Your task to perform on an android device: set the timer Image 0: 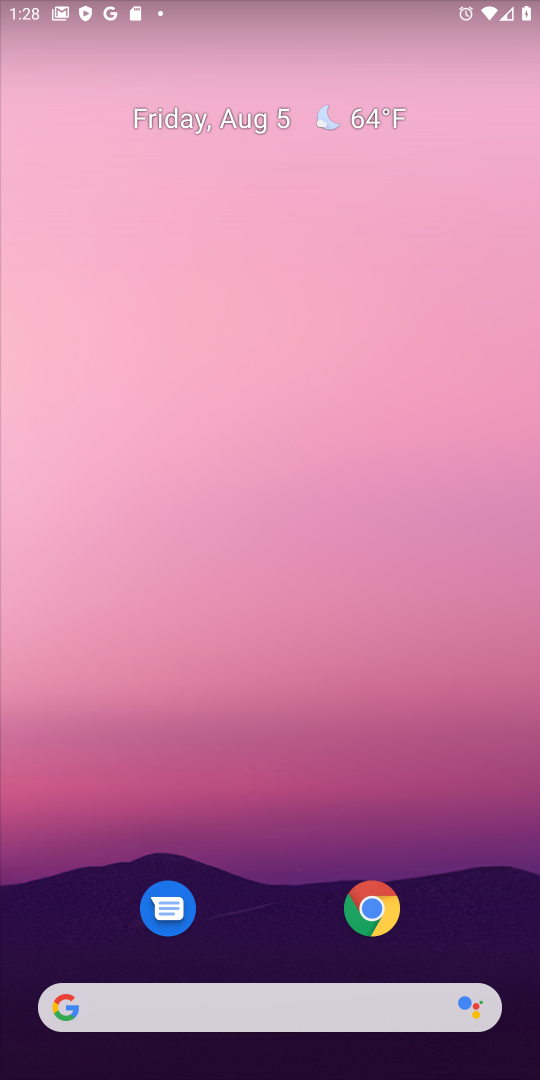
Step 0: press home button
Your task to perform on an android device: set the timer Image 1: 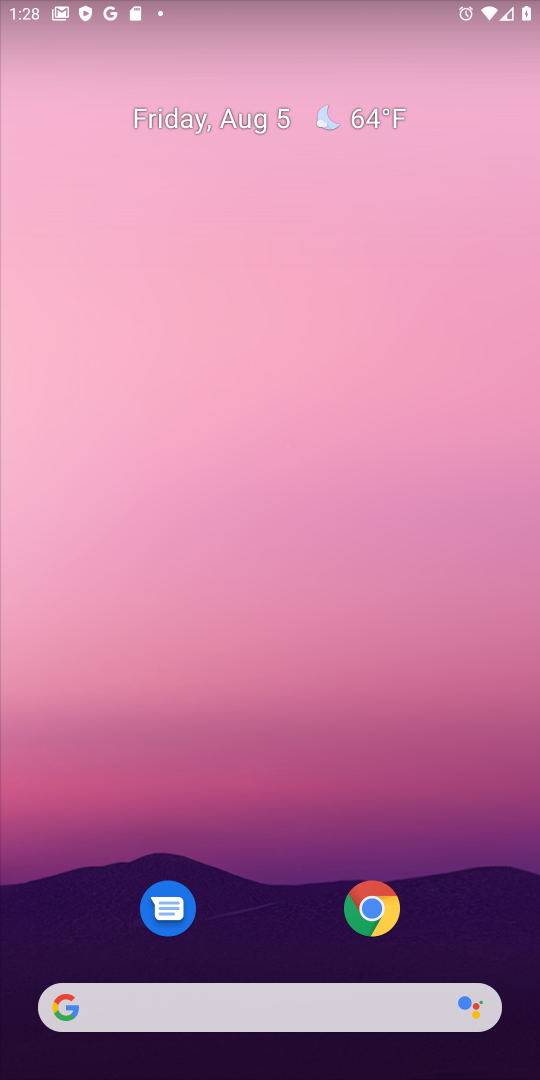
Step 1: drag from (235, 965) to (184, 288)
Your task to perform on an android device: set the timer Image 2: 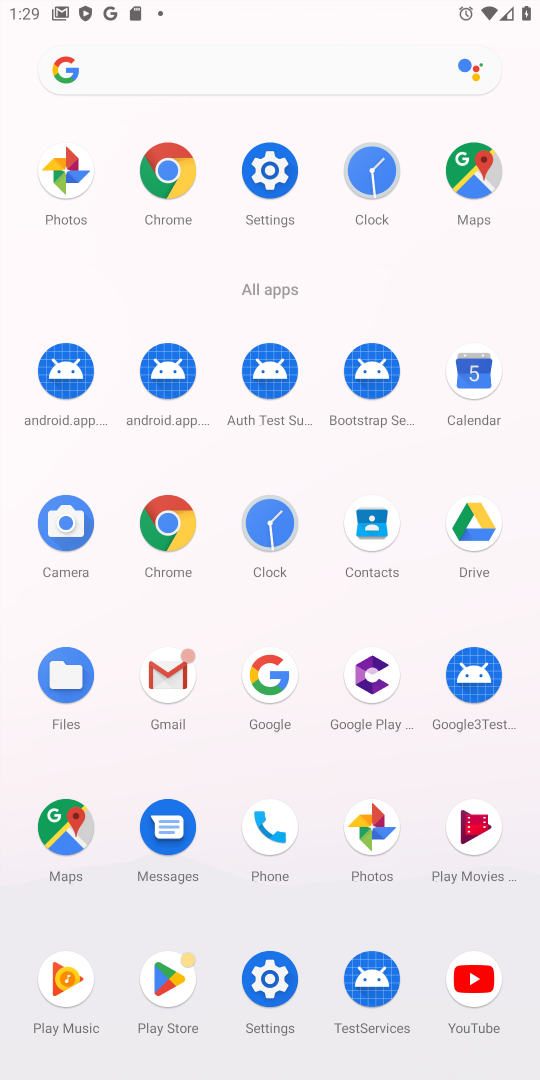
Step 2: click (269, 520)
Your task to perform on an android device: set the timer Image 3: 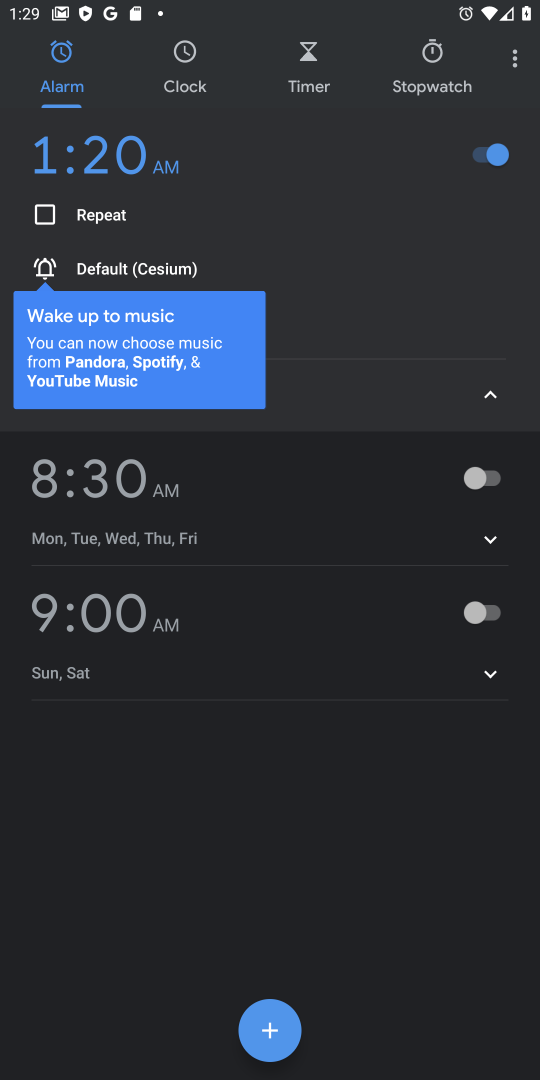
Step 3: click (317, 59)
Your task to perform on an android device: set the timer Image 4: 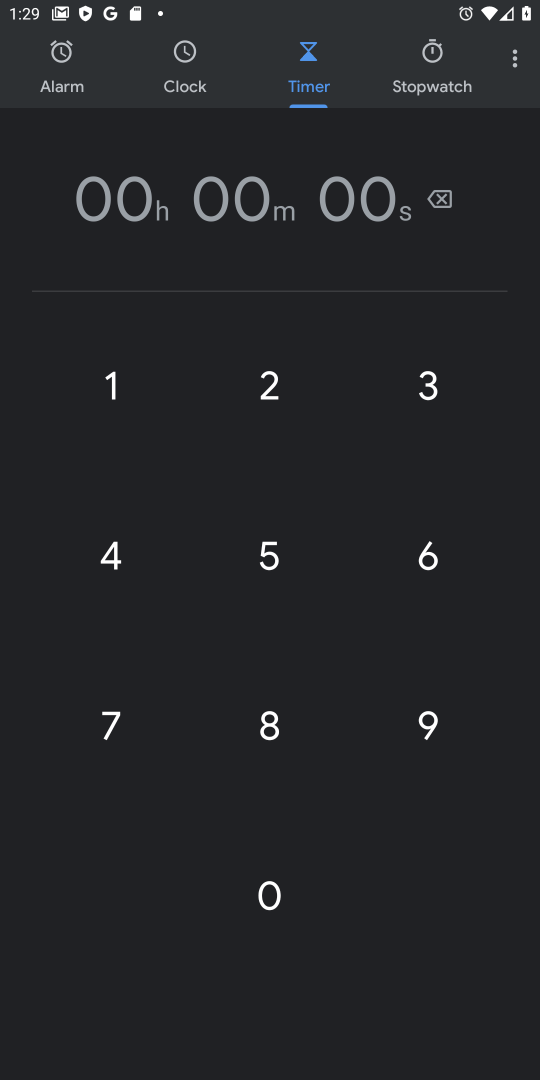
Step 4: click (254, 556)
Your task to perform on an android device: set the timer Image 5: 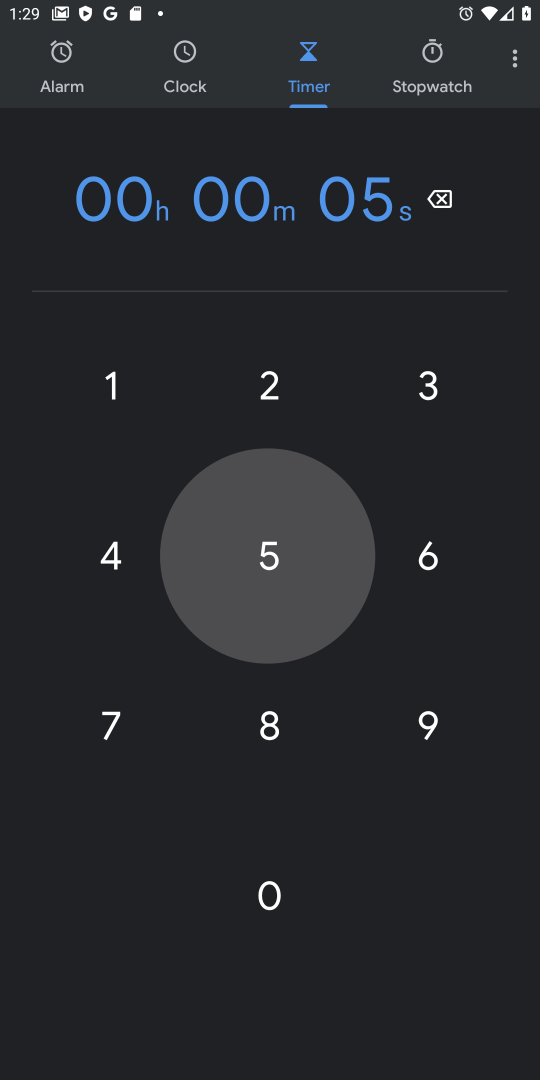
Step 5: click (444, 379)
Your task to perform on an android device: set the timer Image 6: 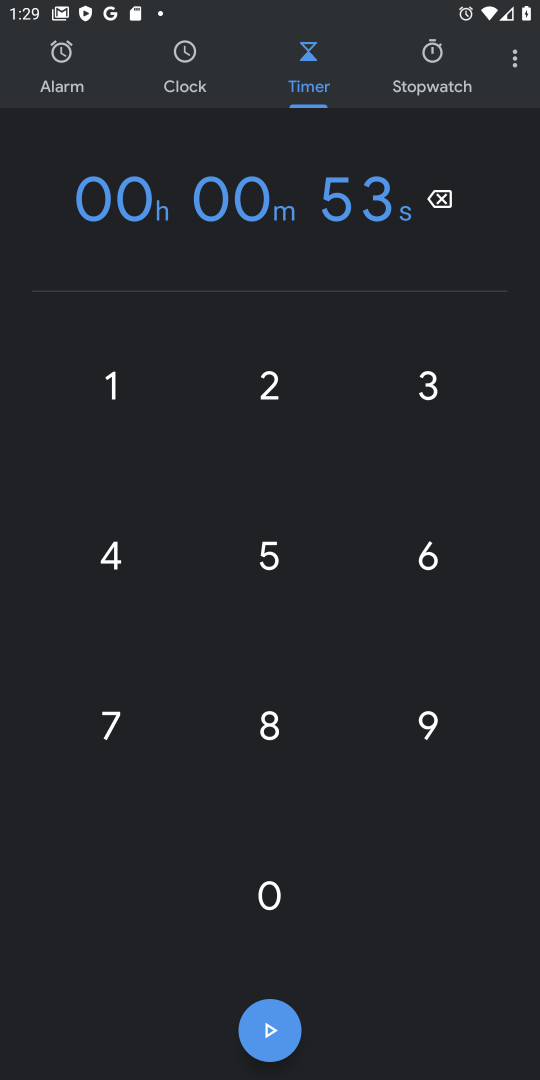
Step 6: click (134, 738)
Your task to perform on an android device: set the timer Image 7: 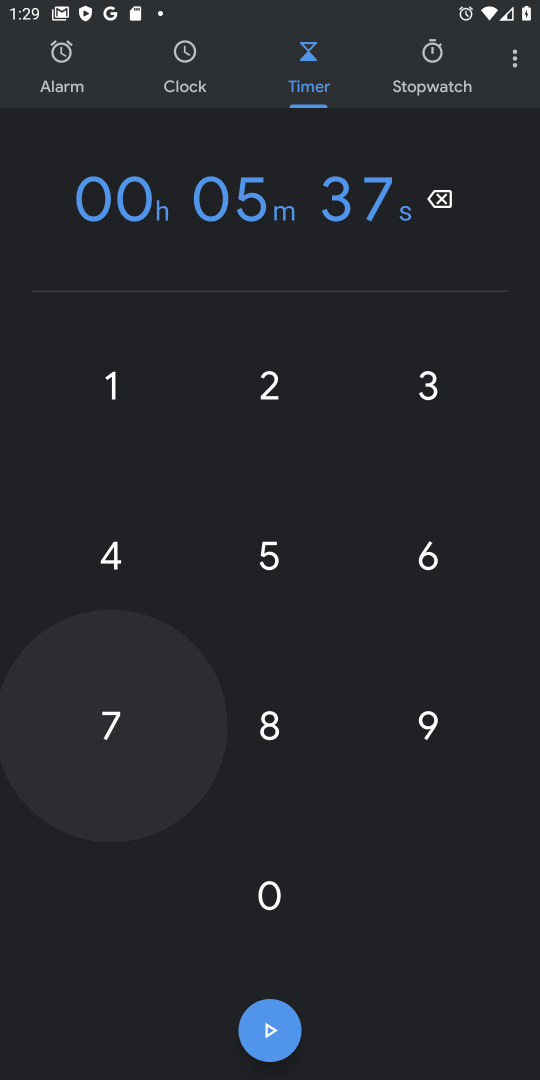
Step 7: click (129, 549)
Your task to perform on an android device: set the timer Image 8: 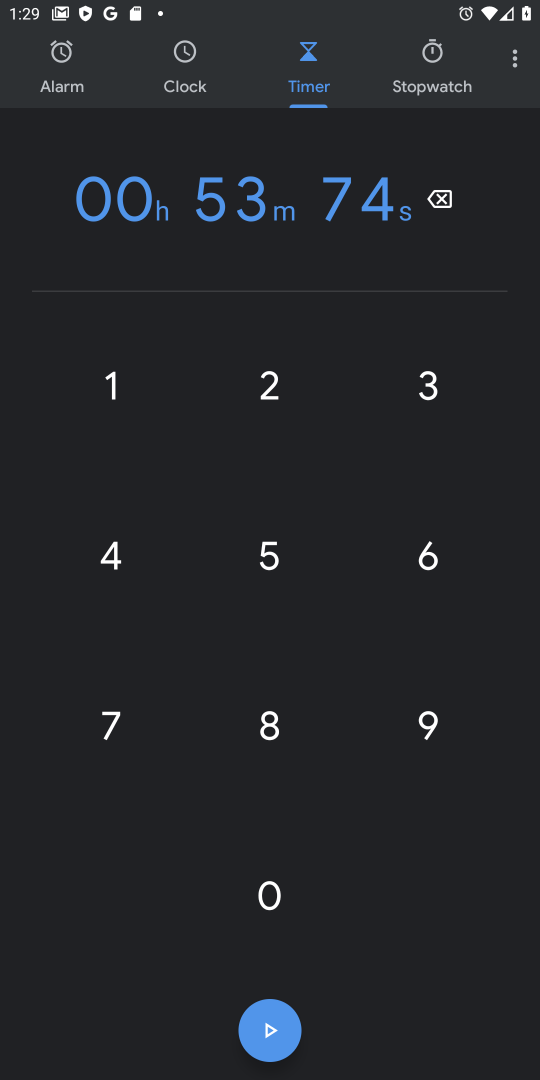
Step 8: click (412, 575)
Your task to perform on an android device: set the timer Image 9: 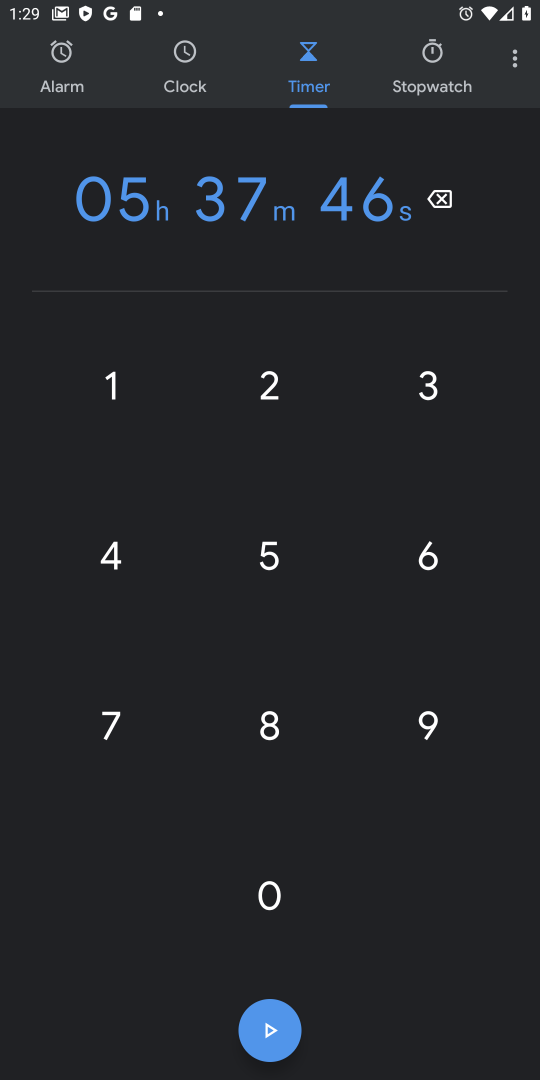
Step 9: click (268, 1055)
Your task to perform on an android device: set the timer Image 10: 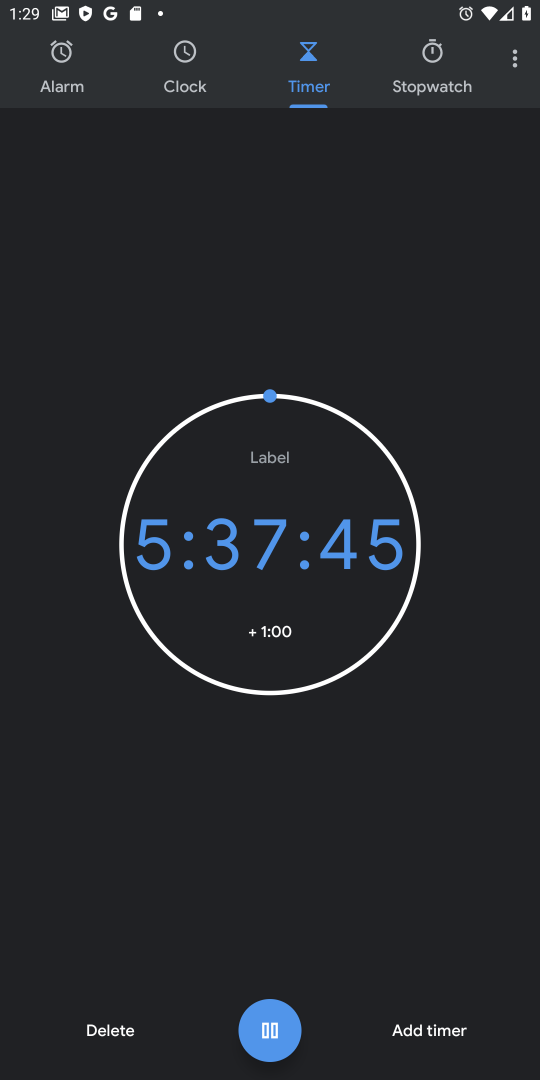
Step 10: task complete